Your task to perform on an android device: turn on notifications settings in the gmail app Image 0: 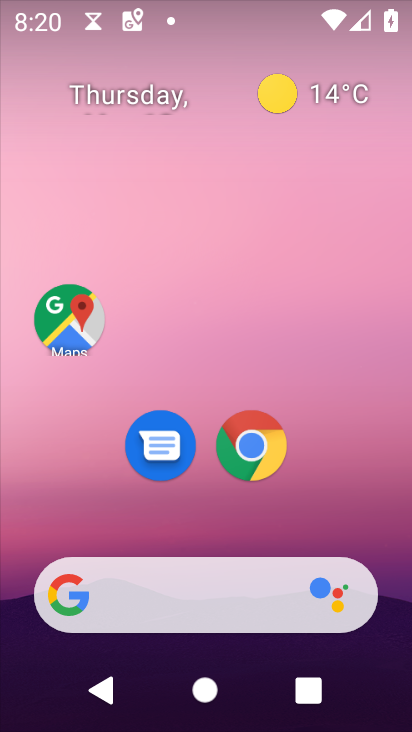
Step 0: drag from (220, 725) to (231, 192)
Your task to perform on an android device: turn on notifications settings in the gmail app Image 1: 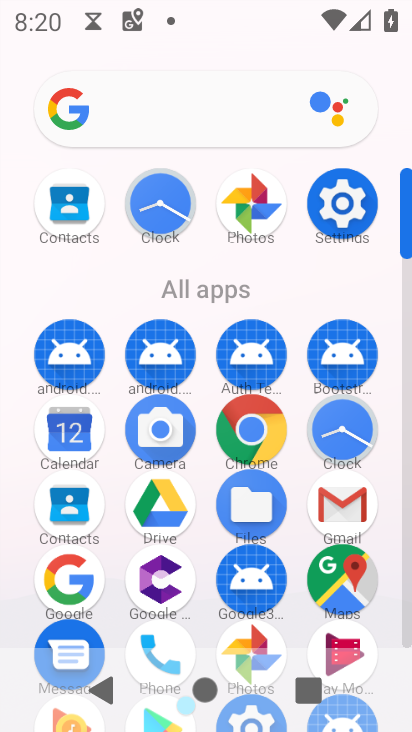
Step 1: click (344, 505)
Your task to perform on an android device: turn on notifications settings in the gmail app Image 2: 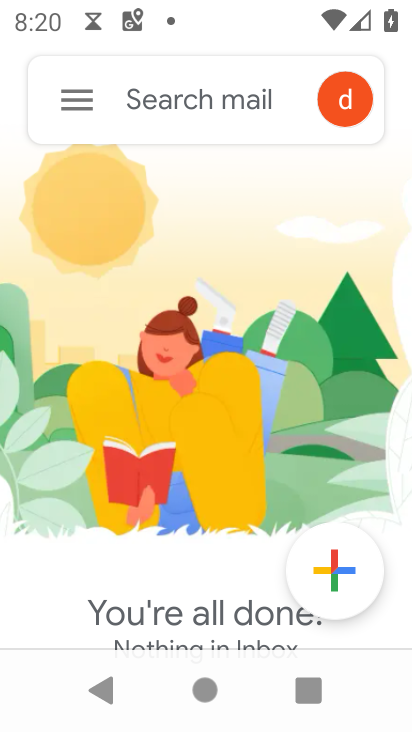
Step 2: click (71, 98)
Your task to perform on an android device: turn on notifications settings in the gmail app Image 3: 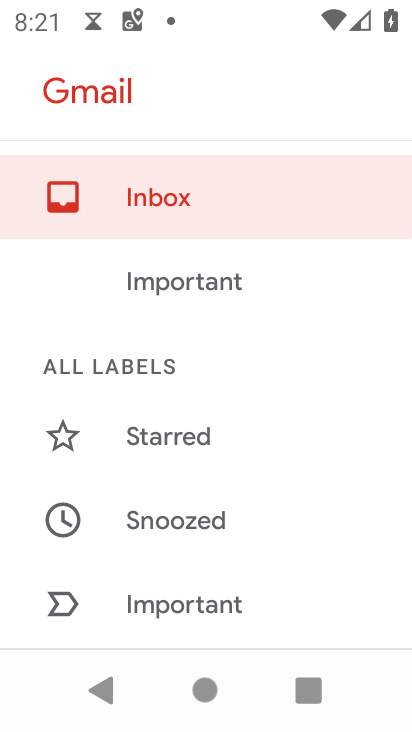
Step 3: drag from (186, 600) to (190, 222)
Your task to perform on an android device: turn on notifications settings in the gmail app Image 4: 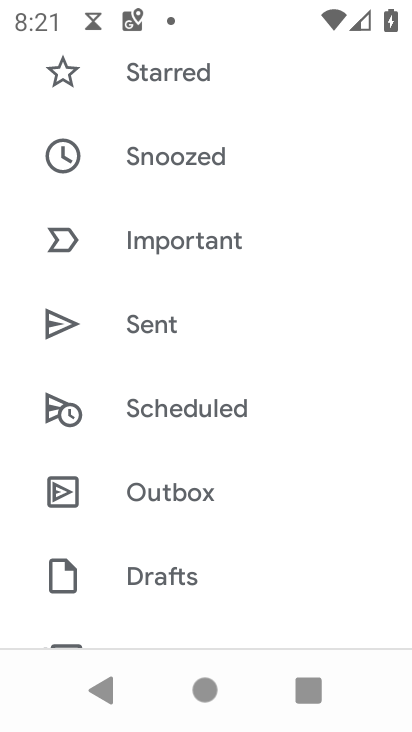
Step 4: drag from (218, 616) to (221, 271)
Your task to perform on an android device: turn on notifications settings in the gmail app Image 5: 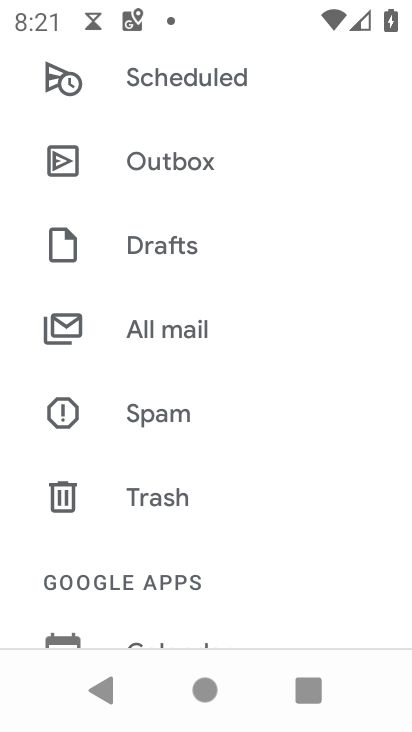
Step 5: drag from (225, 608) to (225, 246)
Your task to perform on an android device: turn on notifications settings in the gmail app Image 6: 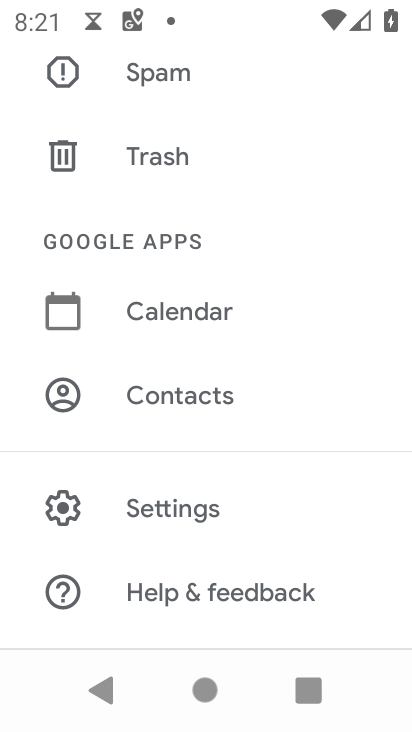
Step 6: click (165, 504)
Your task to perform on an android device: turn on notifications settings in the gmail app Image 7: 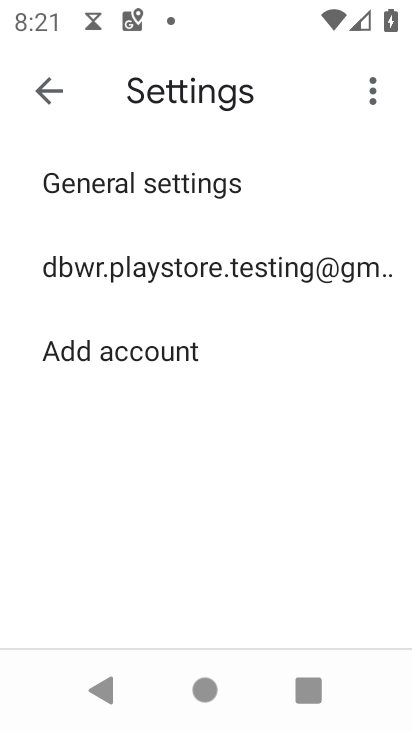
Step 7: click (205, 269)
Your task to perform on an android device: turn on notifications settings in the gmail app Image 8: 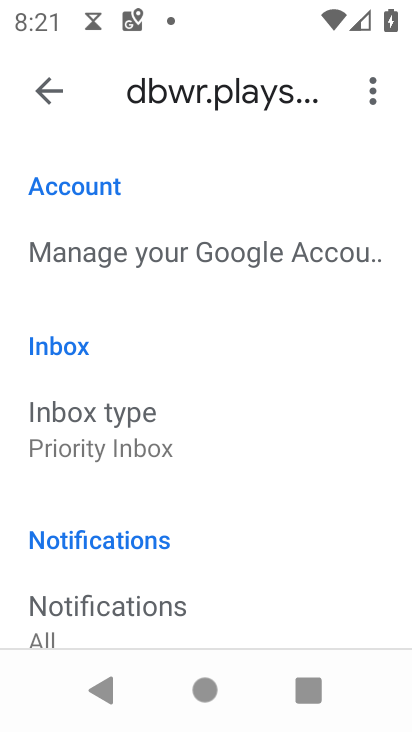
Step 8: drag from (202, 602) to (218, 283)
Your task to perform on an android device: turn on notifications settings in the gmail app Image 9: 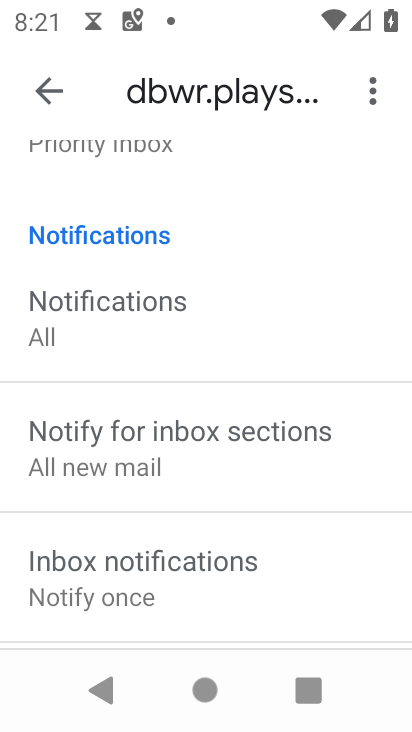
Step 9: click (138, 305)
Your task to perform on an android device: turn on notifications settings in the gmail app Image 10: 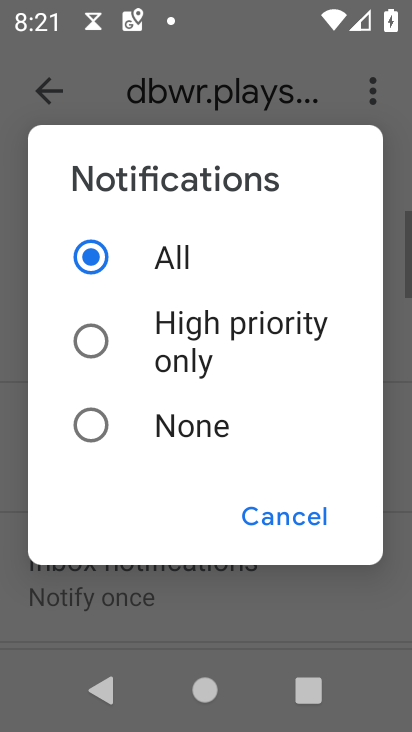
Step 10: click (80, 429)
Your task to perform on an android device: turn on notifications settings in the gmail app Image 11: 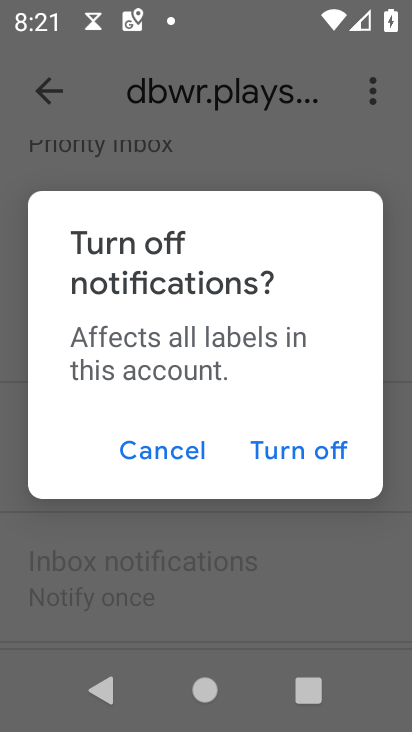
Step 11: click (270, 448)
Your task to perform on an android device: turn on notifications settings in the gmail app Image 12: 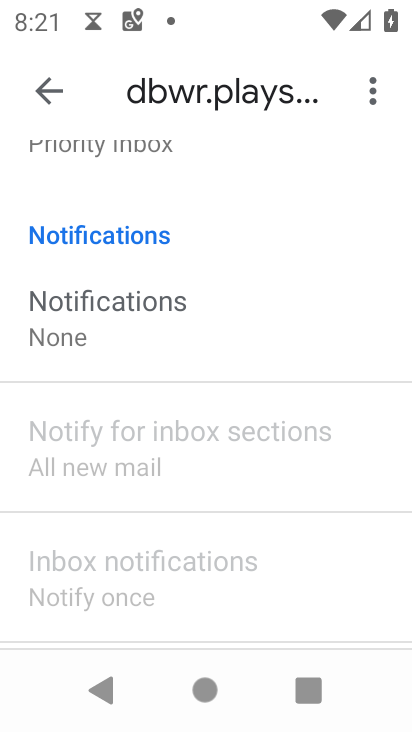
Step 12: task complete